Your task to perform on an android device: clear history in the chrome app Image 0: 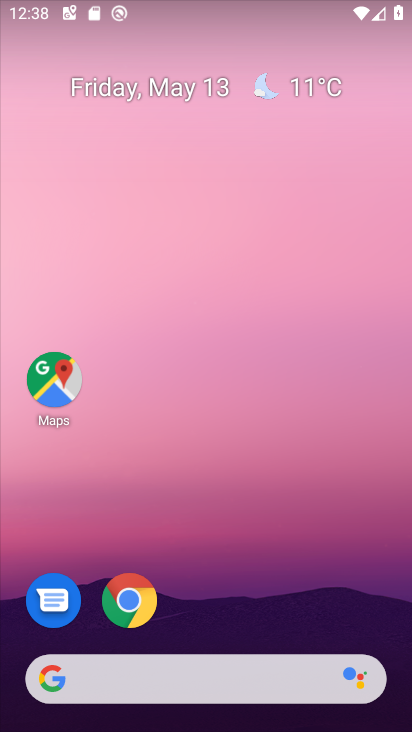
Step 0: click (134, 607)
Your task to perform on an android device: clear history in the chrome app Image 1: 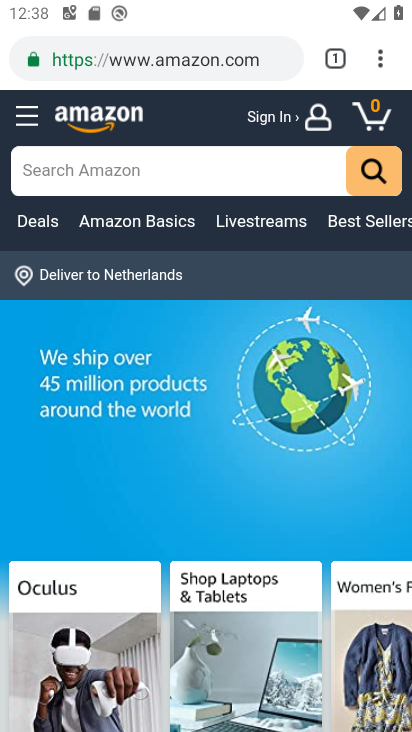
Step 1: click (380, 61)
Your task to perform on an android device: clear history in the chrome app Image 2: 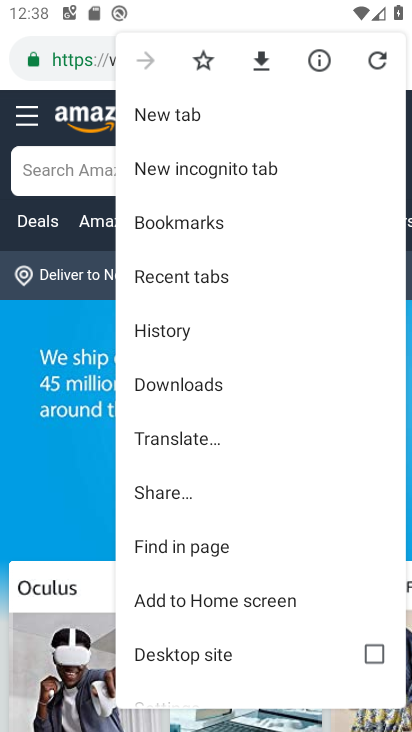
Step 2: click (178, 330)
Your task to perform on an android device: clear history in the chrome app Image 3: 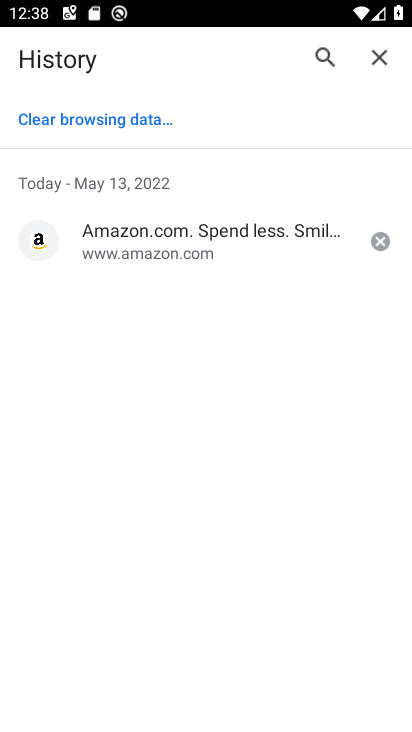
Step 3: click (105, 122)
Your task to perform on an android device: clear history in the chrome app Image 4: 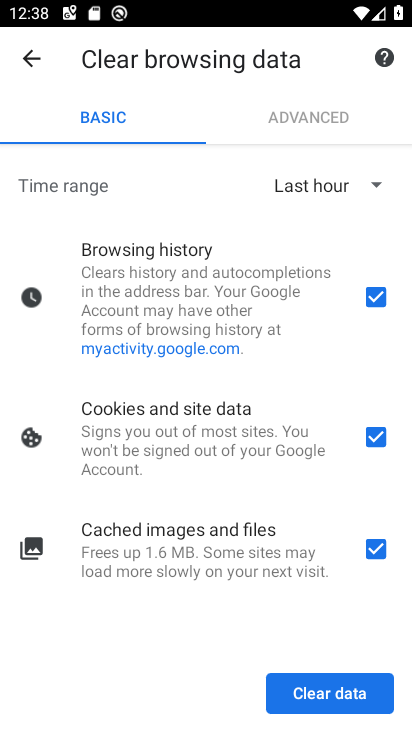
Step 4: click (345, 684)
Your task to perform on an android device: clear history in the chrome app Image 5: 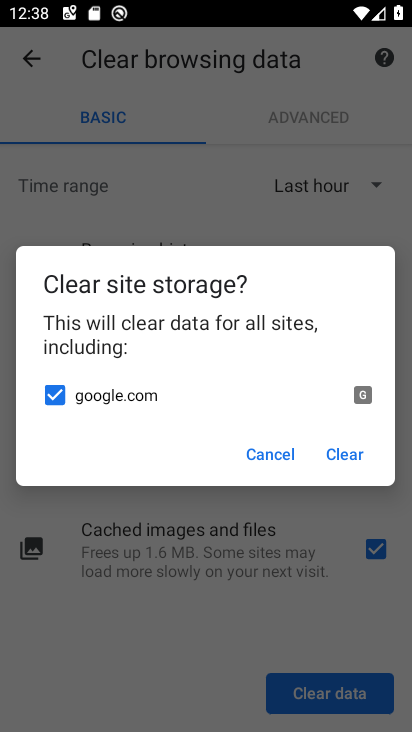
Step 5: click (339, 454)
Your task to perform on an android device: clear history in the chrome app Image 6: 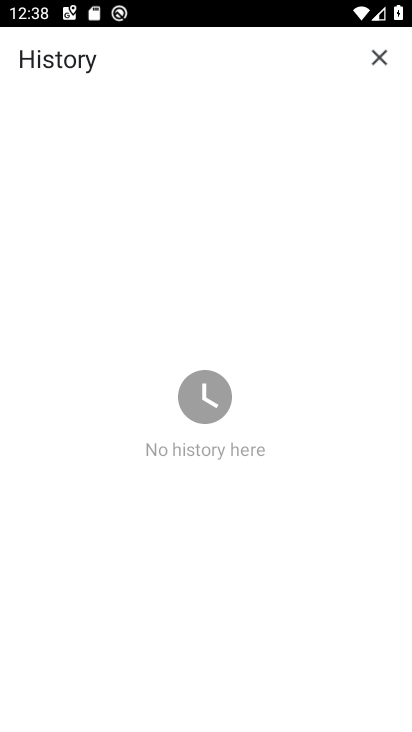
Step 6: task complete